Your task to perform on an android device: What is the recent news? Image 0: 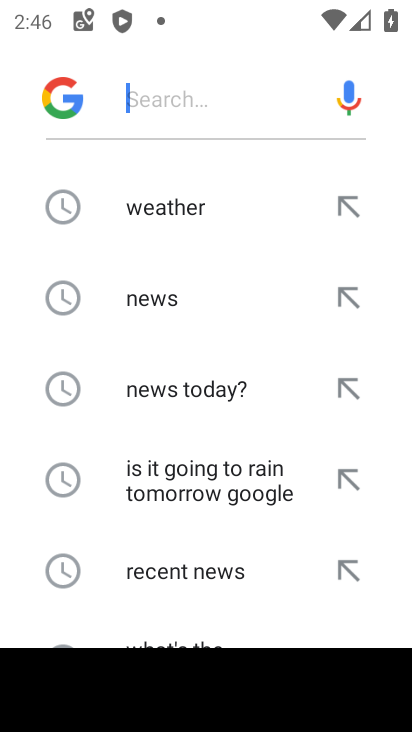
Step 0: click (140, 301)
Your task to perform on an android device: What is the recent news? Image 1: 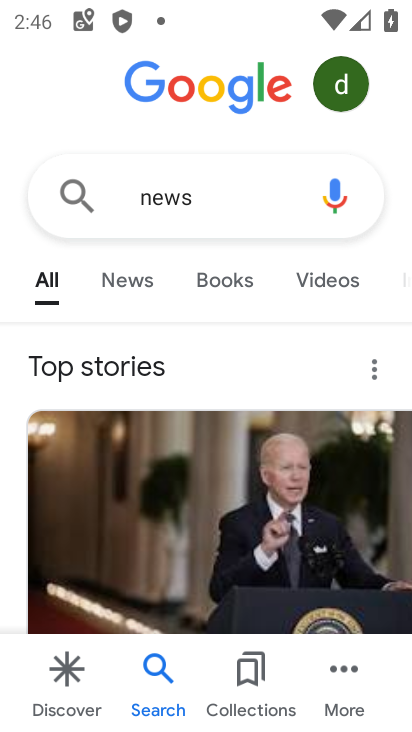
Step 1: task complete